Your task to perform on an android device: Go to display settings Image 0: 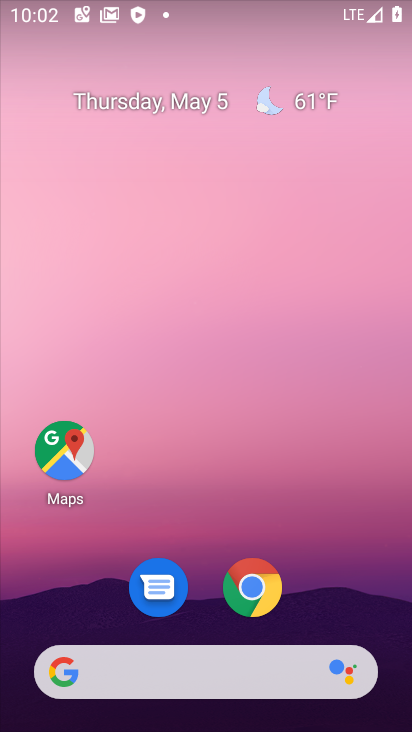
Step 0: drag from (99, 647) to (247, 52)
Your task to perform on an android device: Go to display settings Image 1: 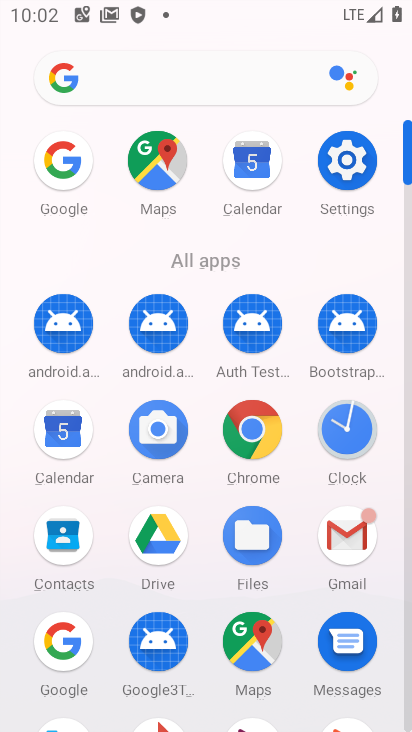
Step 1: click (345, 154)
Your task to perform on an android device: Go to display settings Image 2: 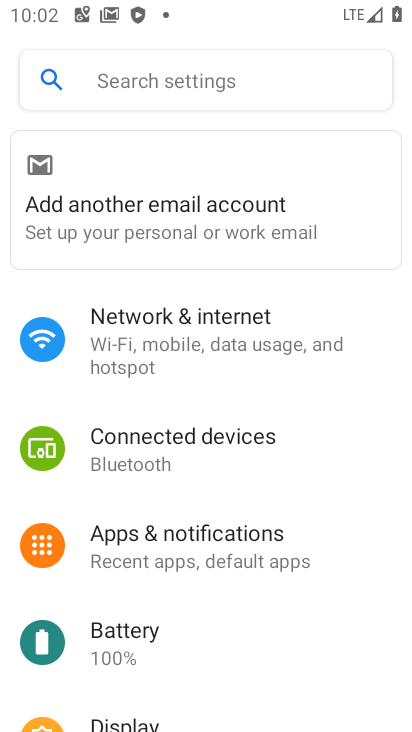
Step 2: drag from (172, 678) to (265, 180)
Your task to perform on an android device: Go to display settings Image 3: 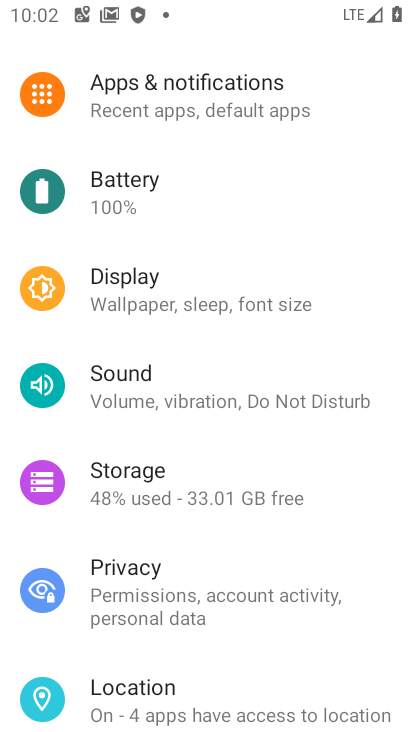
Step 3: click (138, 308)
Your task to perform on an android device: Go to display settings Image 4: 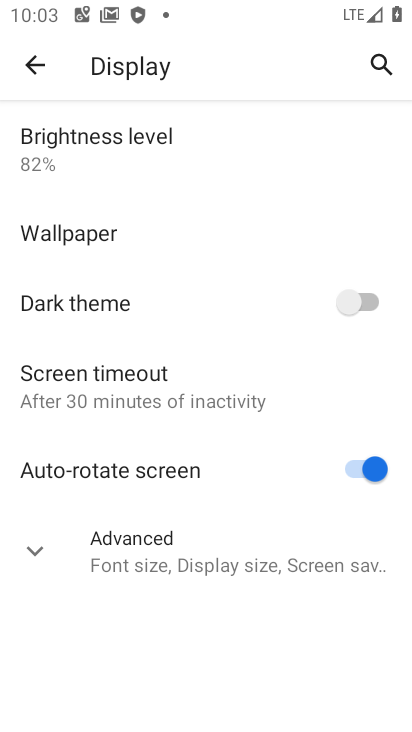
Step 4: task complete